Your task to perform on an android device: toggle data saver in the chrome app Image 0: 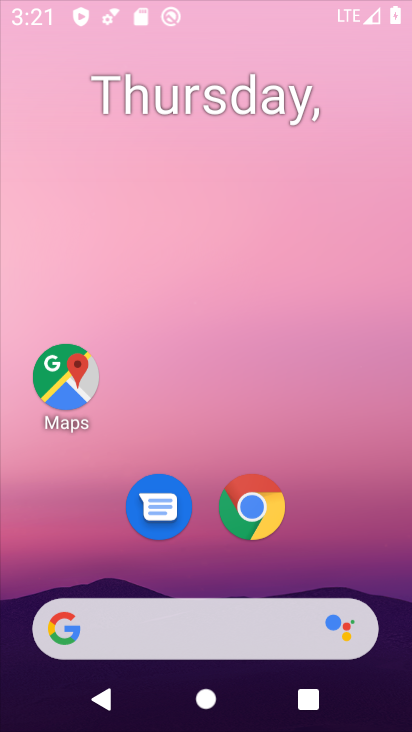
Step 0: press home button
Your task to perform on an android device: toggle data saver in the chrome app Image 1: 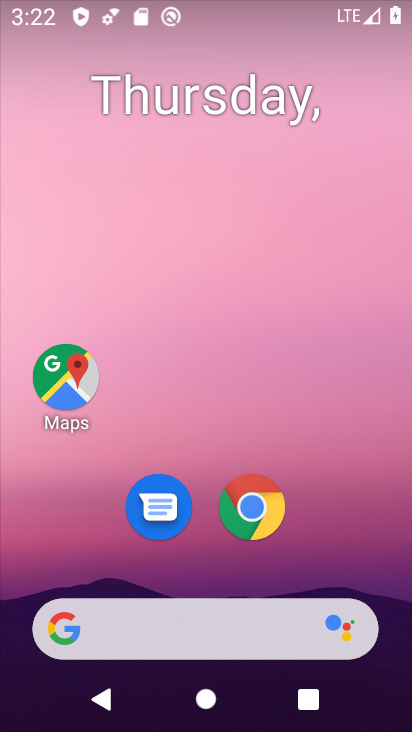
Step 1: click (265, 501)
Your task to perform on an android device: toggle data saver in the chrome app Image 2: 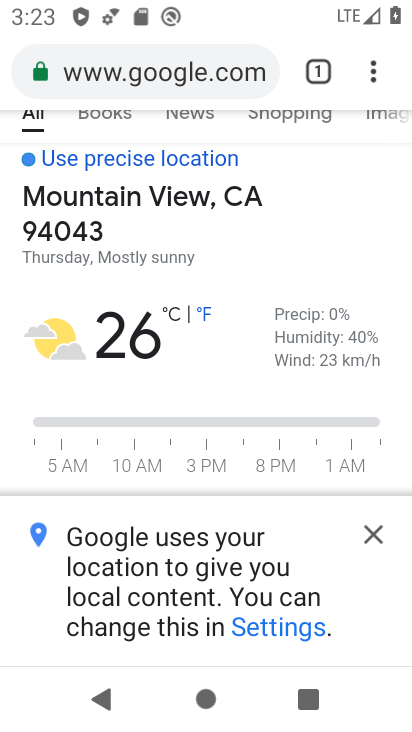
Step 2: drag from (377, 59) to (140, 497)
Your task to perform on an android device: toggle data saver in the chrome app Image 3: 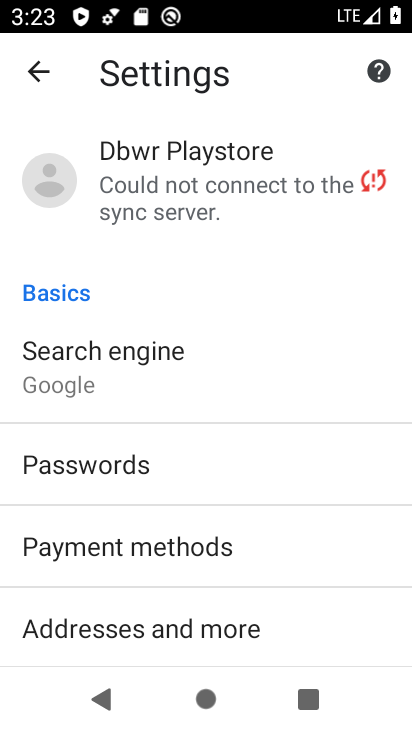
Step 3: drag from (139, 594) to (222, 164)
Your task to perform on an android device: toggle data saver in the chrome app Image 4: 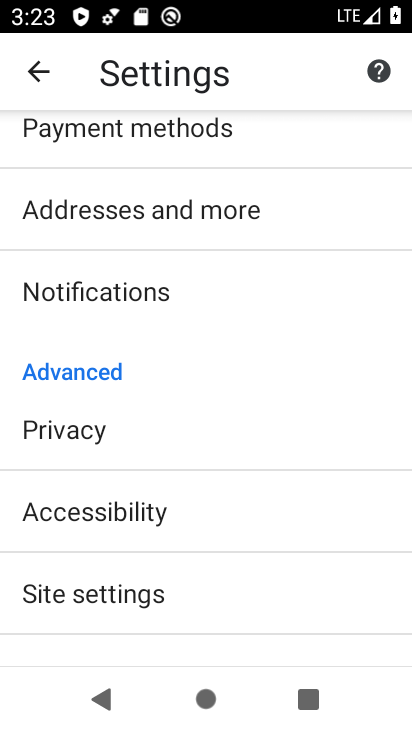
Step 4: drag from (199, 583) to (241, 255)
Your task to perform on an android device: toggle data saver in the chrome app Image 5: 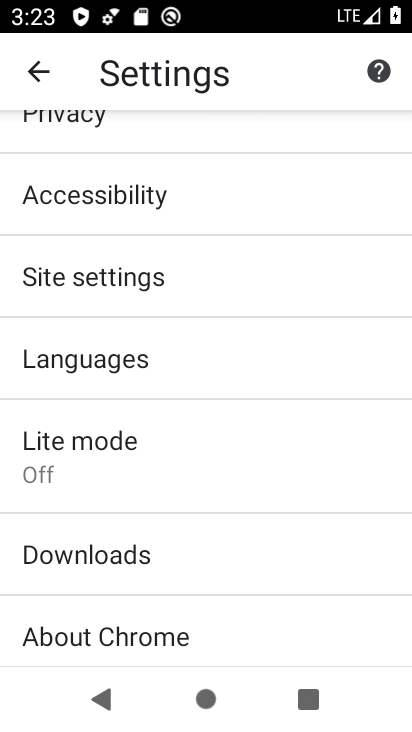
Step 5: click (149, 456)
Your task to perform on an android device: toggle data saver in the chrome app Image 6: 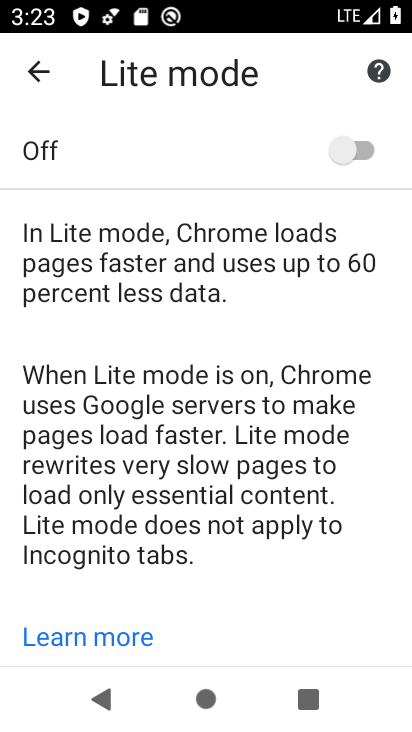
Step 6: click (331, 157)
Your task to perform on an android device: toggle data saver in the chrome app Image 7: 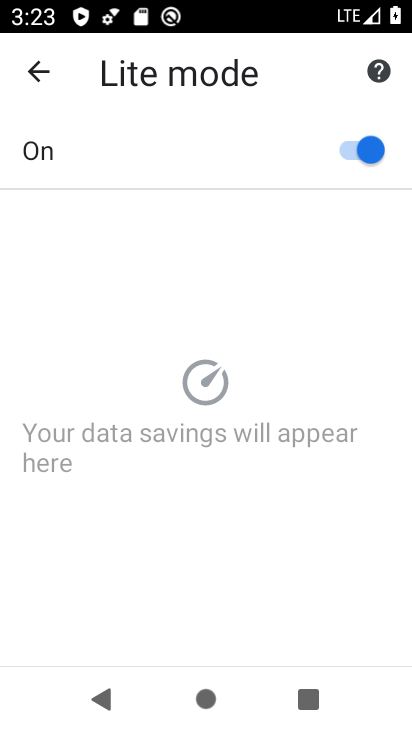
Step 7: task complete